Your task to perform on an android device: change the upload size in google photos Image 0: 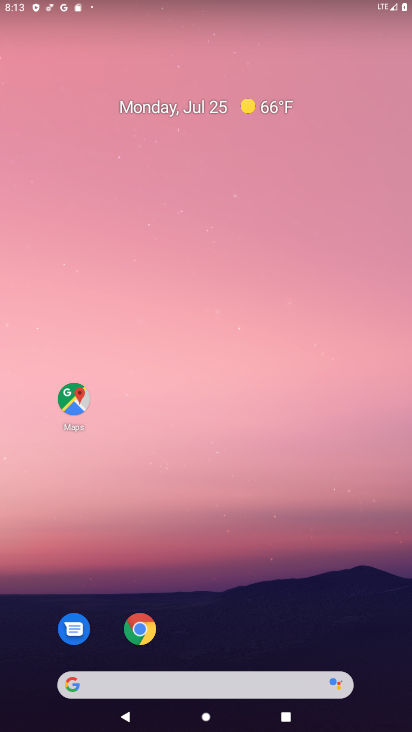
Step 0: press home button
Your task to perform on an android device: change the upload size in google photos Image 1: 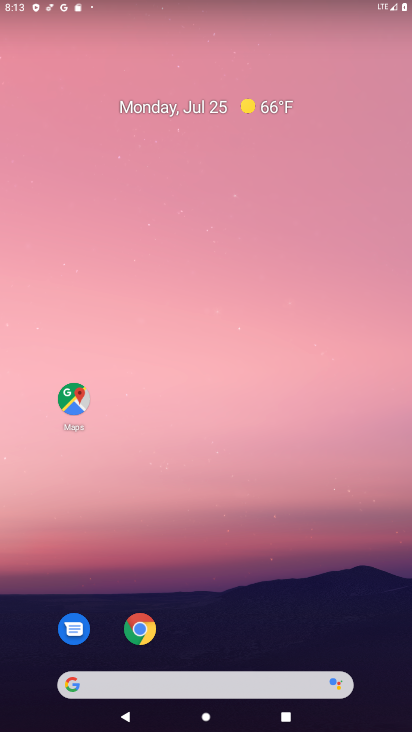
Step 1: drag from (223, 652) to (246, 5)
Your task to perform on an android device: change the upload size in google photos Image 2: 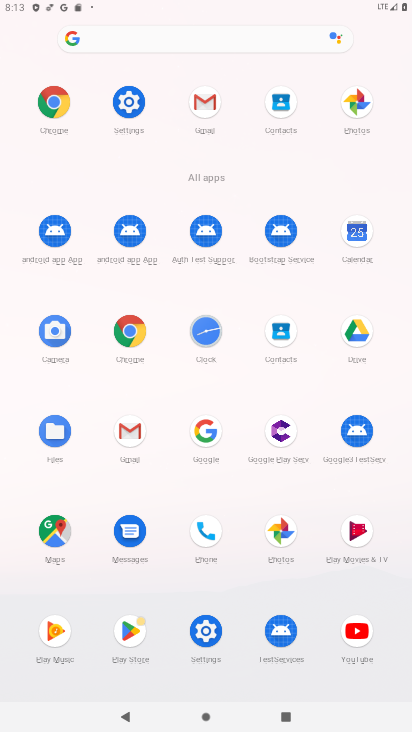
Step 2: click (354, 92)
Your task to perform on an android device: change the upload size in google photos Image 3: 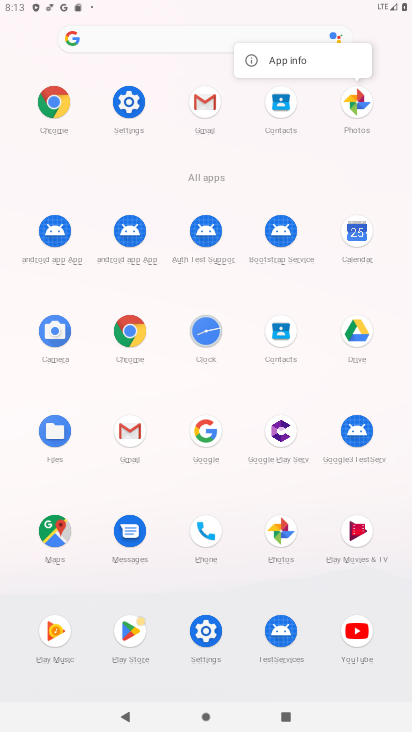
Step 3: click (355, 96)
Your task to perform on an android device: change the upload size in google photos Image 4: 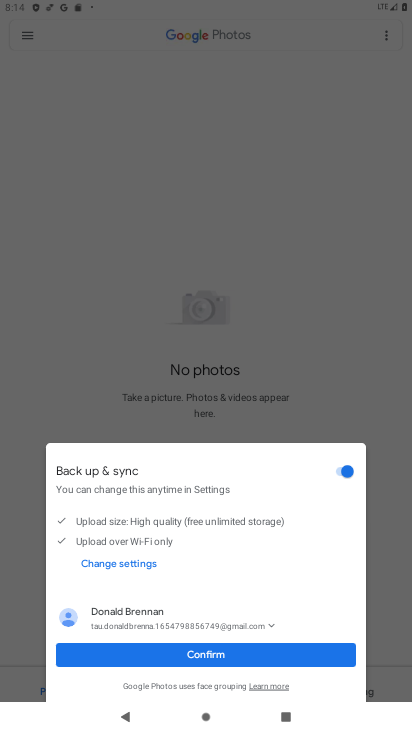
Step 4: click (206, 652)
Your task to perform on an android device: change the upload size in google photos Image 5: 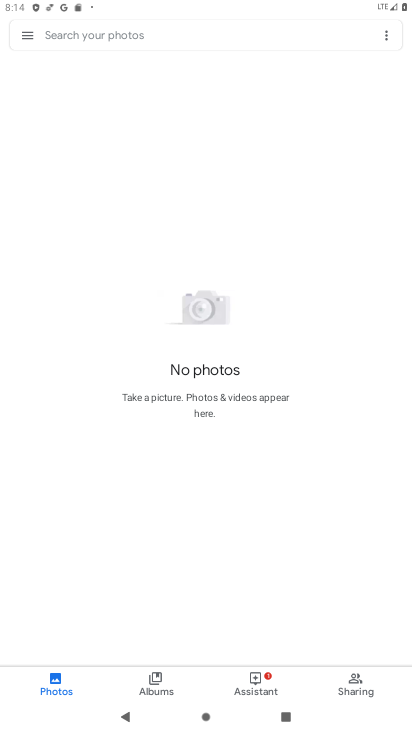
Step 5: click (27, 33)
Your task to perform on an android device: change the upload size in google photos Image 6: 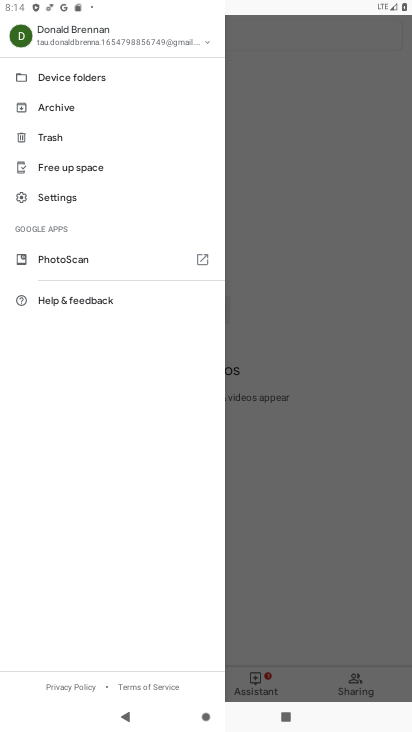
Step 6: click (68, 191)
Your task to perform on an android device: change the upload size in google photos Image 7: 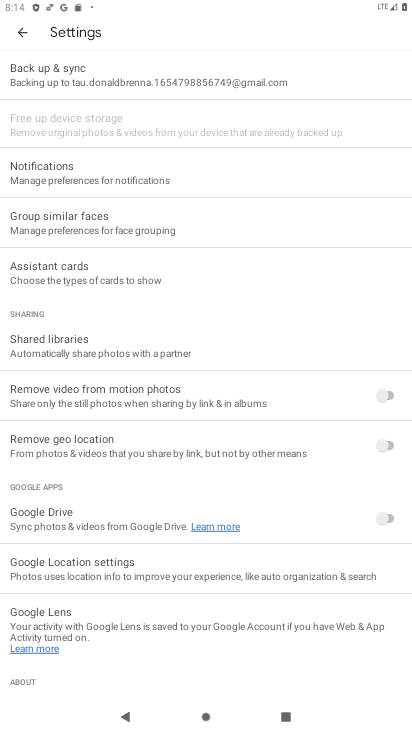
Step 7: click (59, 81)
Your task to perform on an android device: change the upload size in google photos Image 8: 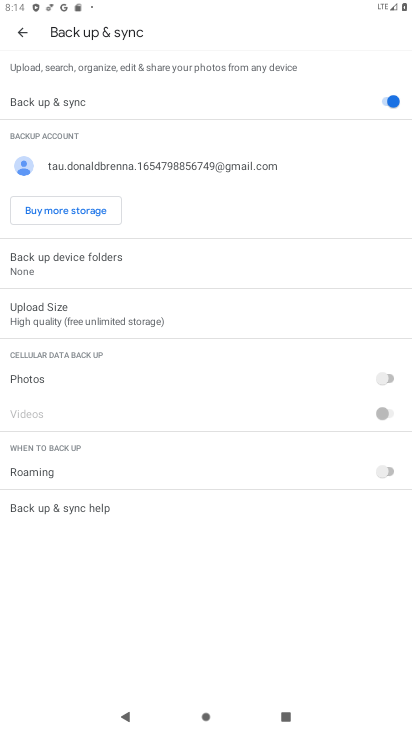
Step 8: click (68, 308)
Your task to perform on an android device: change the upload size in google photos Image 9: 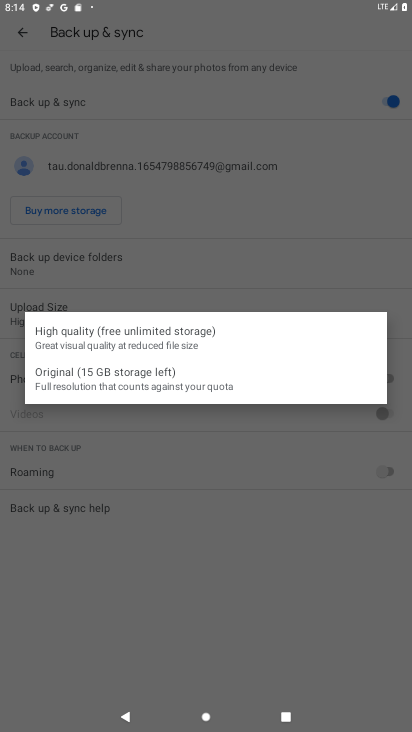
Step 9: click (94, 383)
Your task to perform on an android device: change the upload size in google photos Image 10: 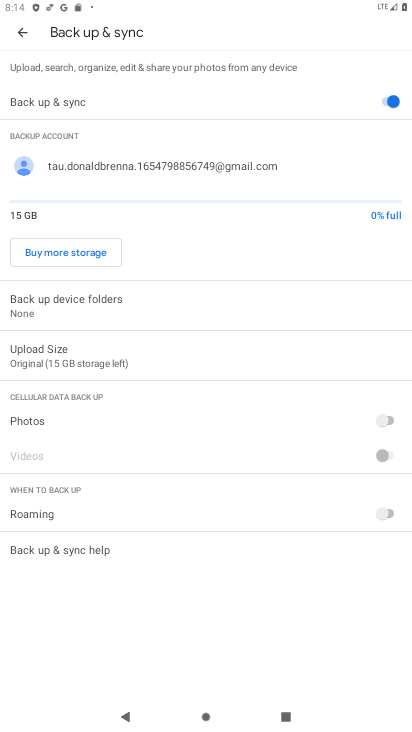
Step 10: task complete